Your task to perform on an android device: Show me popular videos on Youtube Image 0: 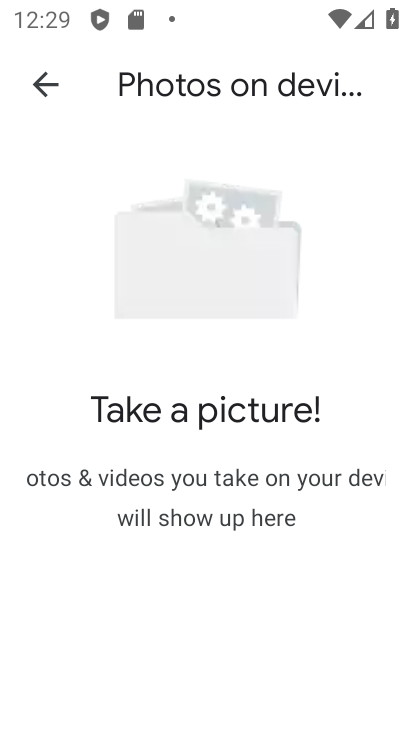
Step 0: press home button
Your task to perform on an android device: Show me popular videos on Youtube Image 1: 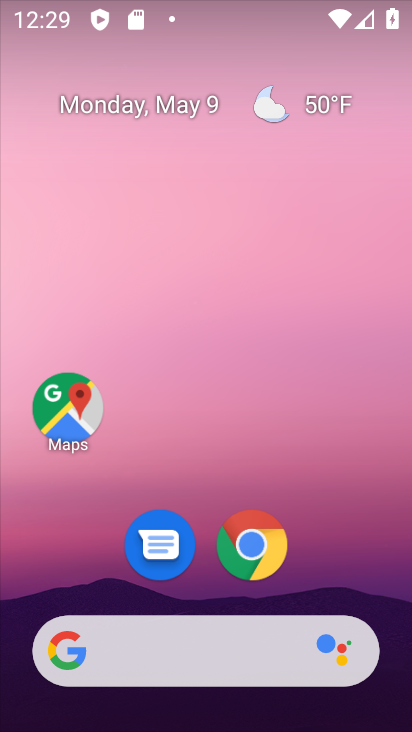
Step 1: drag from (204, 582) to (220, 218)
Your task to perform on an android device: Show me popular videos on Youtube Image 2: 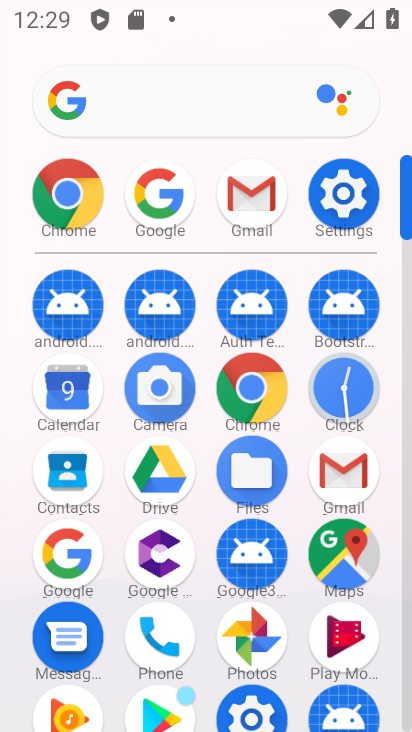
Step 2: drag from (215, 657) to (274, 190)
Your task to perform on an android device: Show me popular videos on Youtube Image 3: 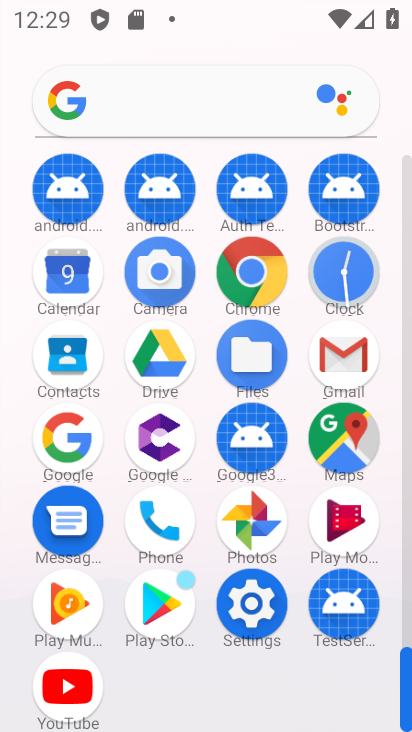
Step 3: click (45, 682)
Your task to perform on an android device: Show me popular videos on Youtube Image 4: 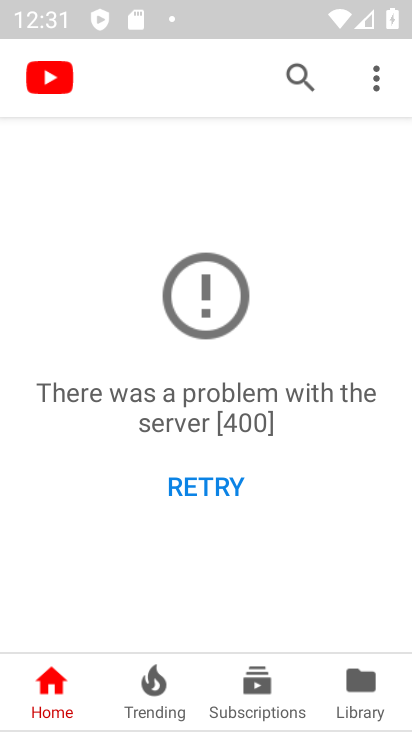
Step 4: click (290, 76)
Your task to perform on an android device: Show me popular videos on Youtube Image 5: 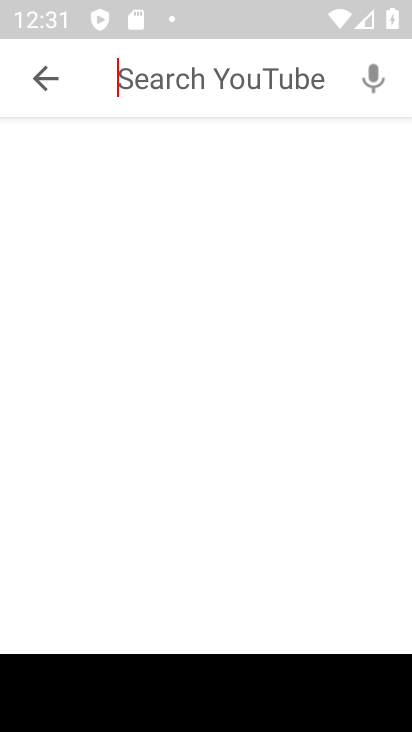
Step 5: type "popular videos"
Your task to perform on an android device: Show me popular videos on Youtube Image 6: 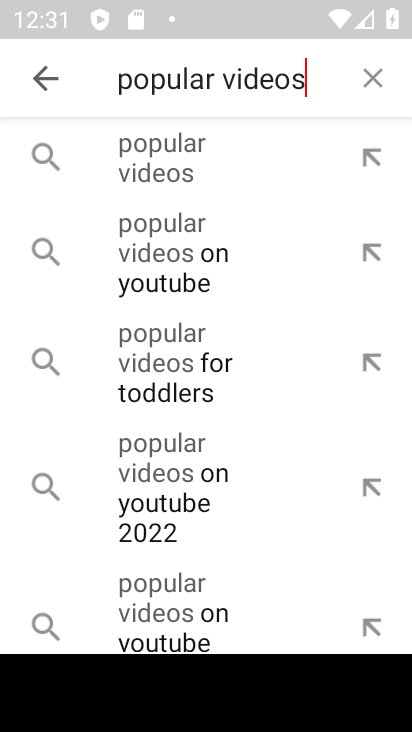
Step 6: click (175, 156)
Your task to perform on an android device: Show me popular videos on Youtube Image 7: 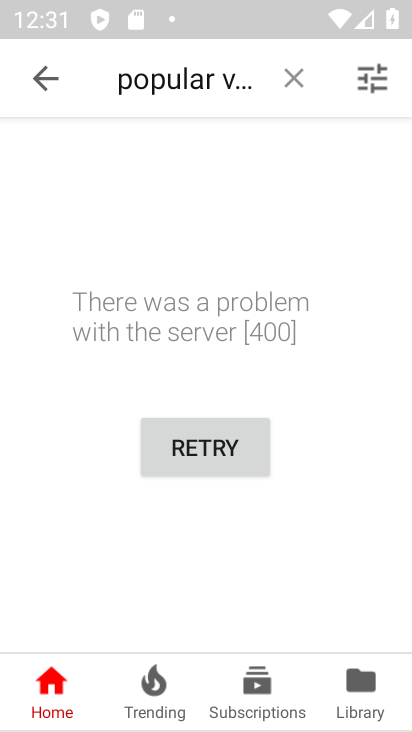
Step 7: task complete